Your task to perform on an android device: Search for Mexican restaurants on Maps Image 0: 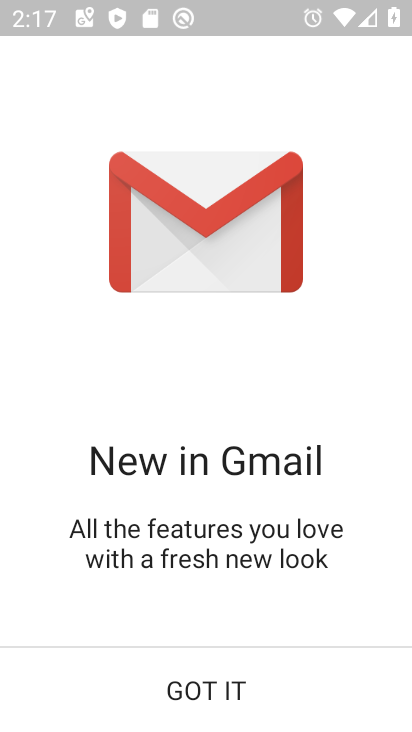
Step 0: press home button
Your task to perform on an android device: Search for Mexican restaurants on Maps Image 1: 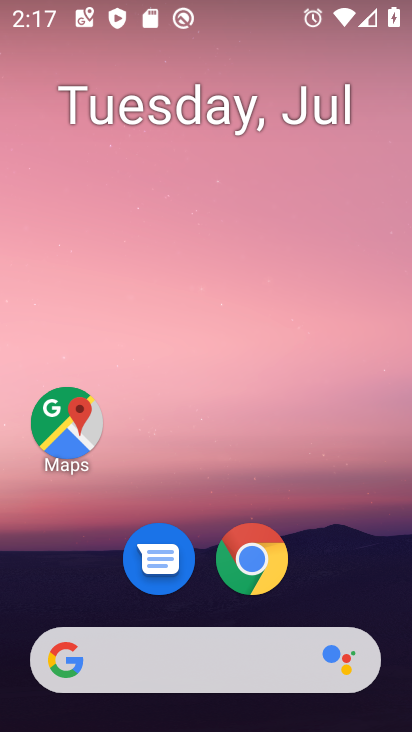
Step 1: drag from (341, 577) to (352, 112)
Your task to perform on an android device: Search for Mexican restaurants on Maps Image 2: 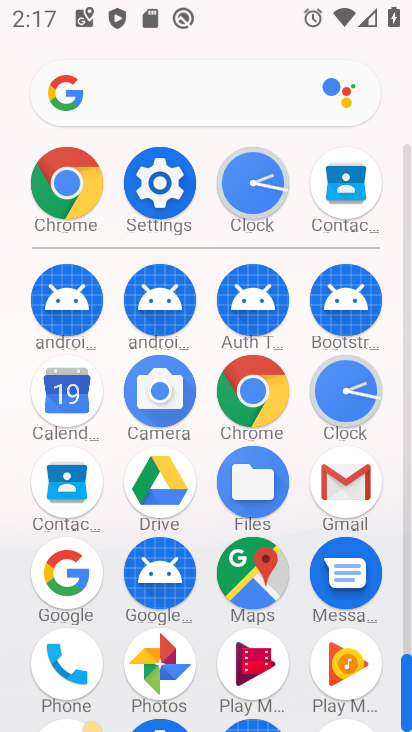
Step 2: click (261, 569)
Your task to perform on an android device: Search for Mexican restaurants on Maps Image 3: 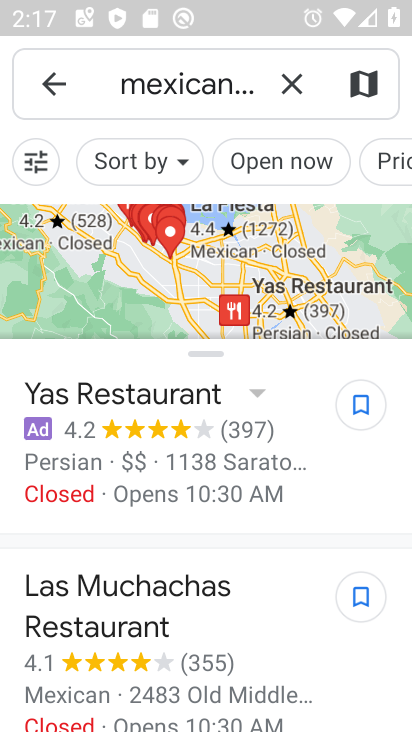
Step 3: task complete